Your task to perform on an android device: allow cookies in the chrome app Image 0: 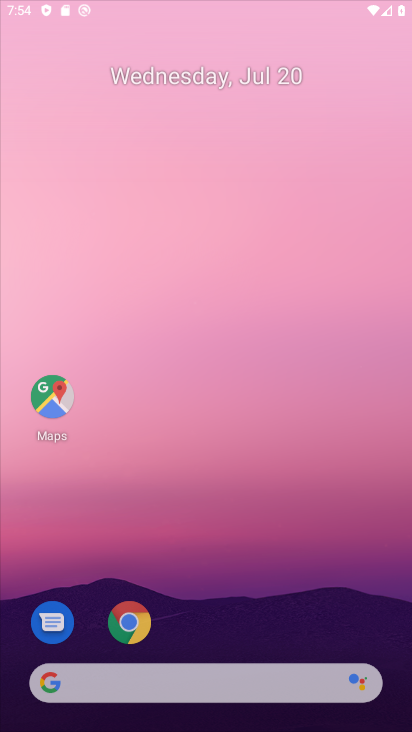
Step 0: click (374, 102)
Your task to perform on an android device: allow cookies in the chrome app Image 1: 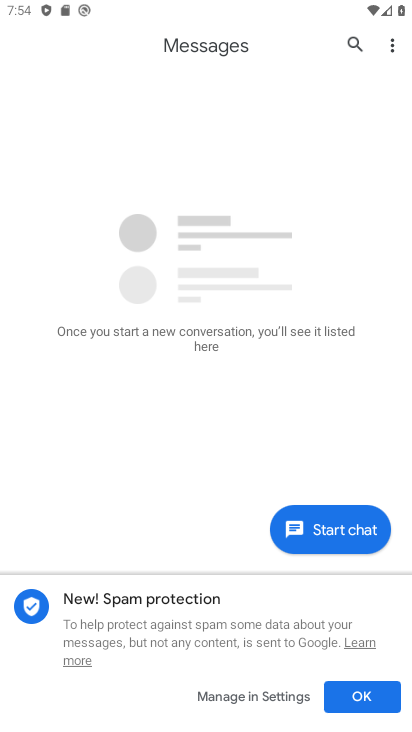
Step 1: press back button
Your task to perform on an android device: allow cookies in the chrome app Image 2: 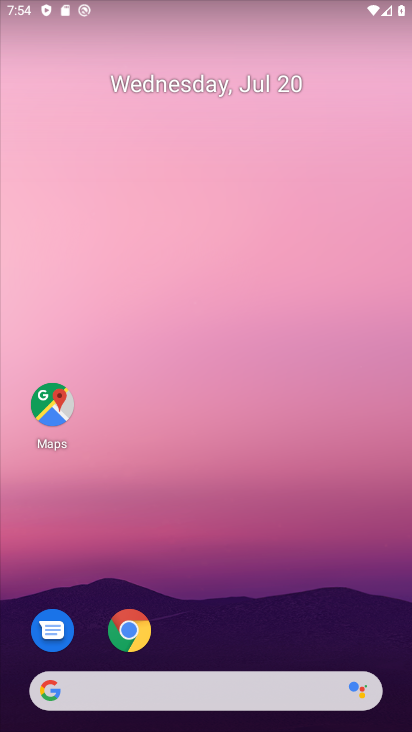
Step 2: click (119, 626)
Your task to perform on an android device: allow cookies in the chrome app Image 3: 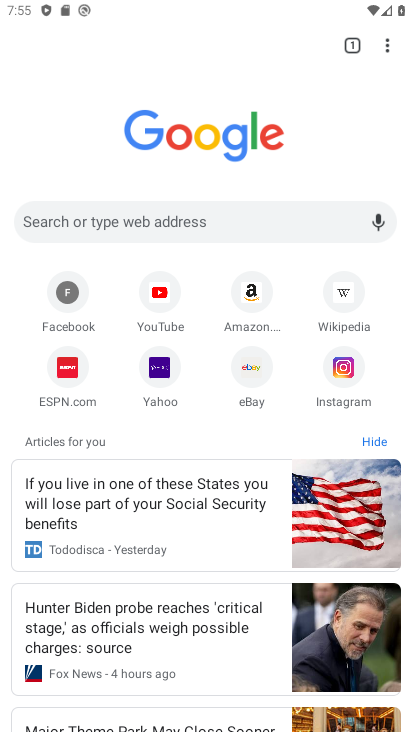
Step 3: click (385, 44)
Your task to perform on an android device: allow cookies in the chrome app Image 4: 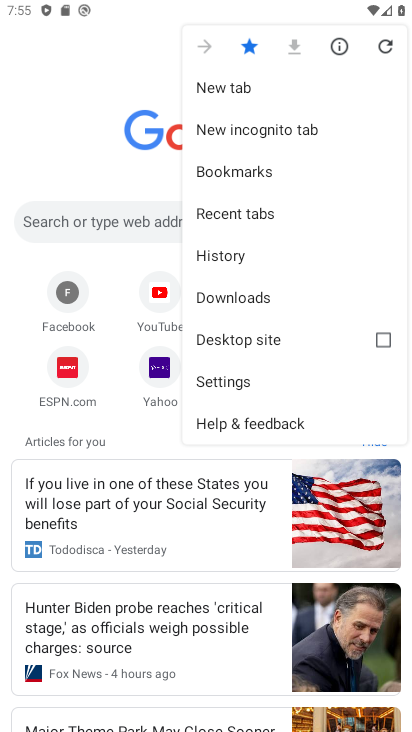
Step 4: click (218, 378)
Your task to perform on an android device: allow cookies in the chrome app Image 5: 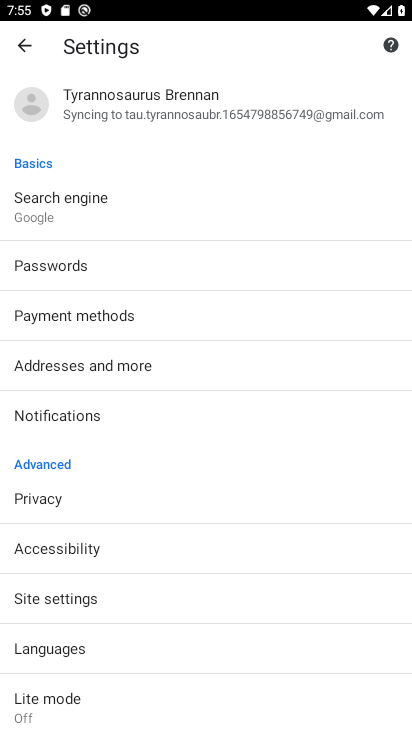
Step 5: drag from (296, 710) to (327, 286)
Your task to perform on an android device: allow cookies in the chrome app Image 6: 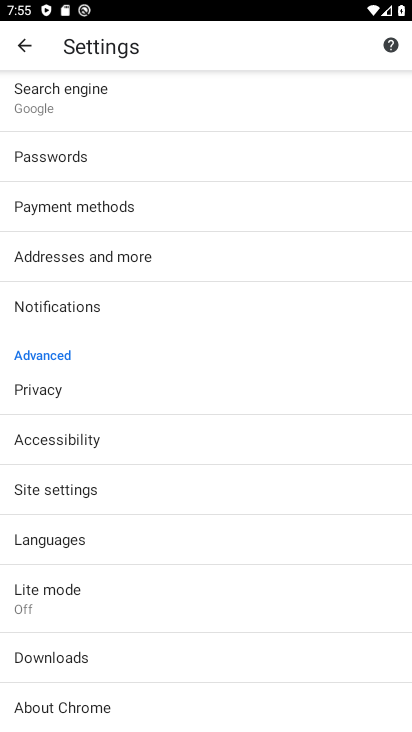
Step 6: click (63, 485)
Your task to perform on an android device: allow cookies in the chrome app Image 7: 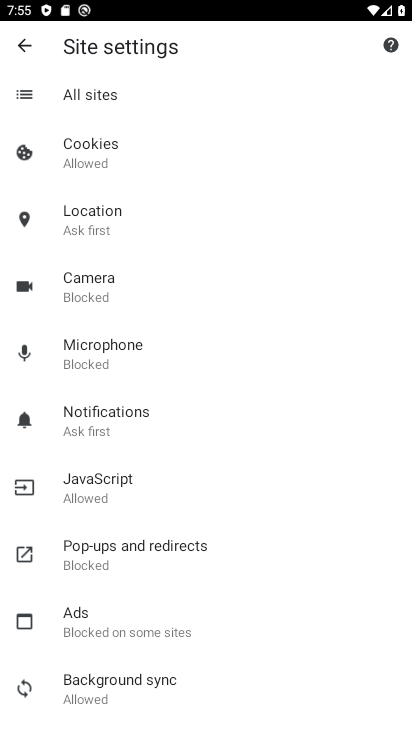
Step 7: click (85, 152)
Your task to perform on an android device: allow cookies in the chrome app Image 8: 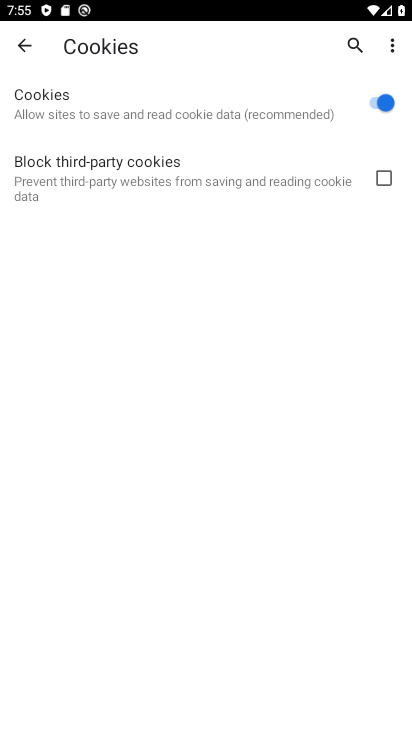
Step 8: task complete